Your task to perform on an android device: Go to Reddit.com Image 0: 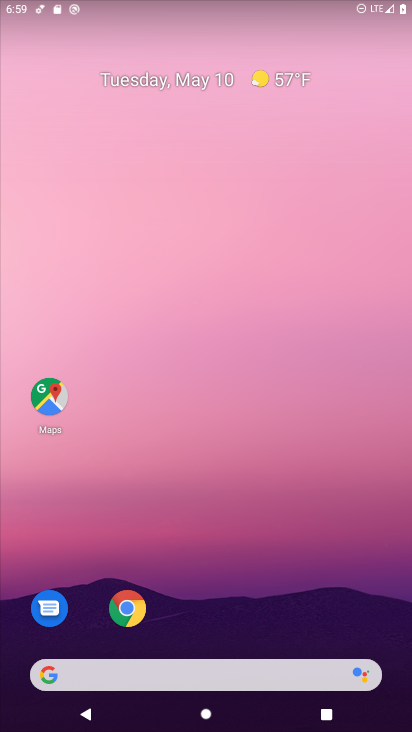
Step 0: drag from (323, 617) to (193, 23)
Your task to perform on an android device: Go to Reddit.com Image 1: 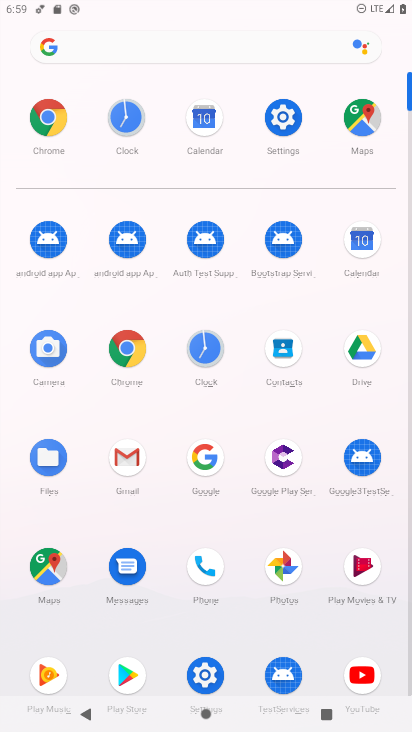
Step 1: click (39, 140)
Your task to perform on an android device: Go to Reddit.com Image 2: 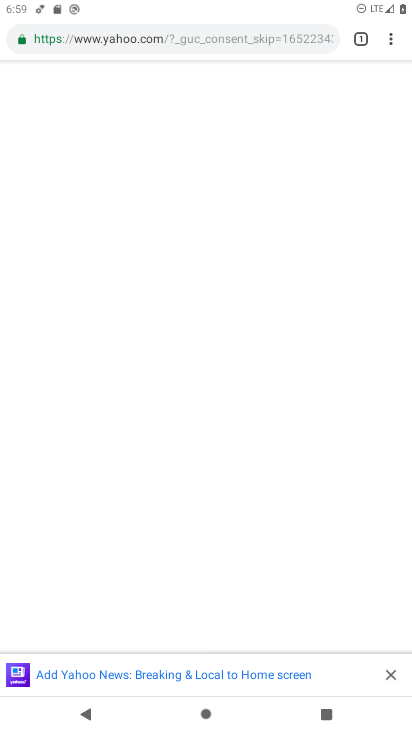
Step 2: press back button
Your task to perform on an android device: Go to Reddit.com Image 3: 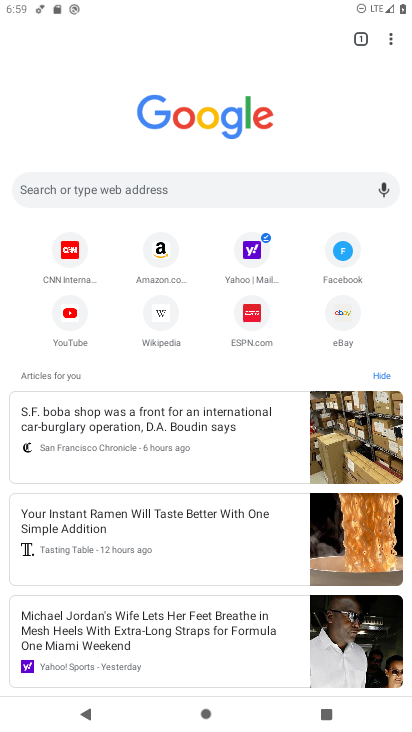
Step 3: click (167, 192)
Your task to perform on an android device: Go to Reddit.com Image 4: 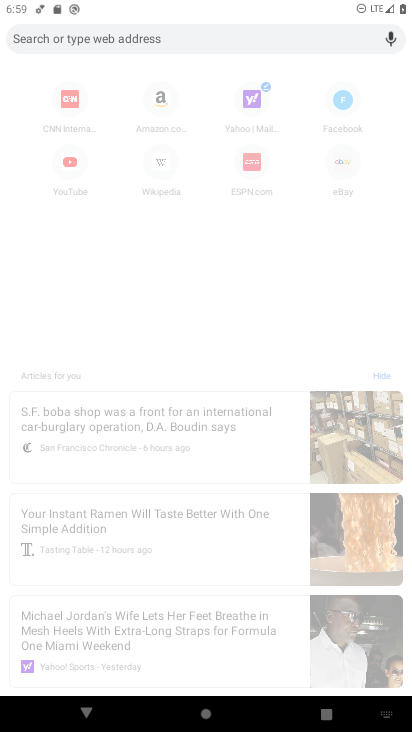
Step 4: type "reddit.com"
Your task to perform on an android device: Go to Reddit.com Image 5: 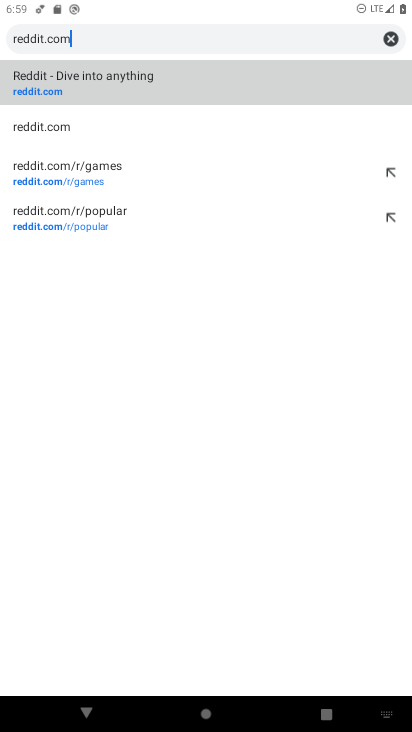
Step 5: click (111, 92)
Your task to perform on an android device: Go to Reddit.com Image 6: 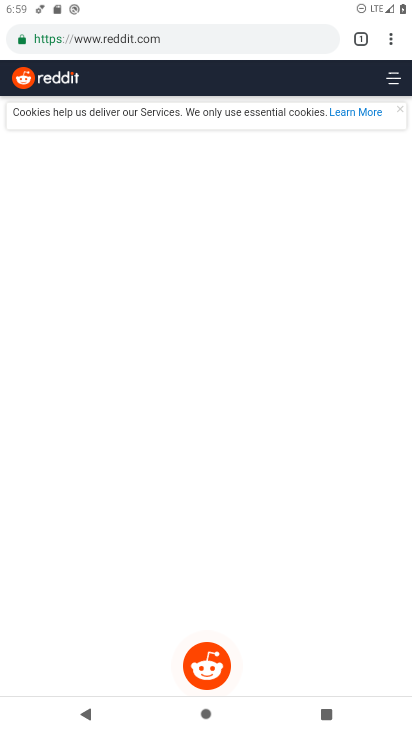
Step 6: task complete